Your task to perform on an android device: When is my next meeting? Image 0: 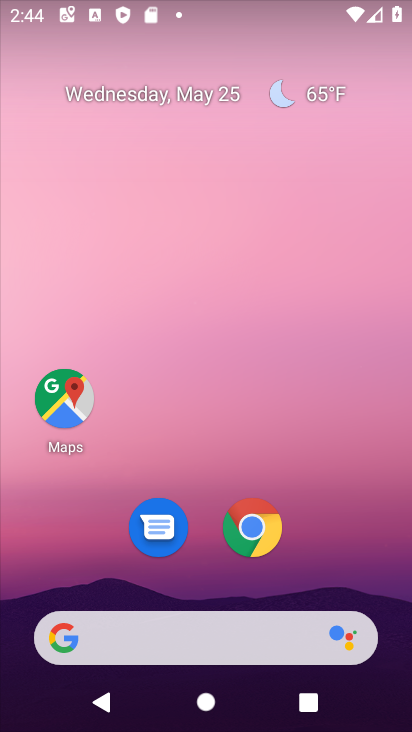
Step 0: drag from (321, 625) to (358, 10)
Your task to perform on an android device: When is my next meeting? Image 1: 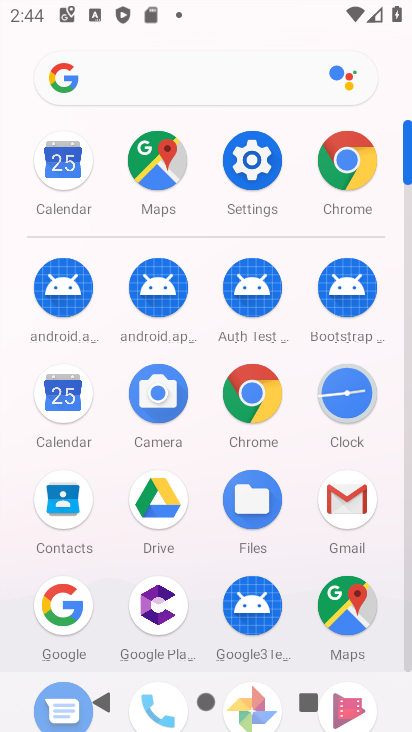
Step 1: click (74, 401)
Your task to perform on an android device: When is my next meeting? Image 2: 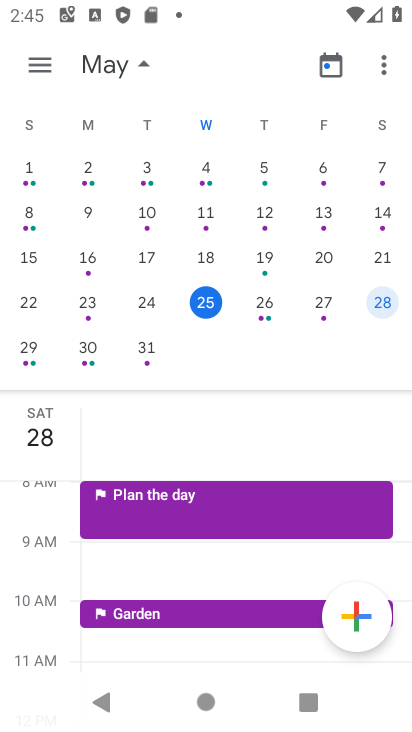
Step 2: click (197, 303)
Your task to perform on an android device: When is my next meeting? Image 3: 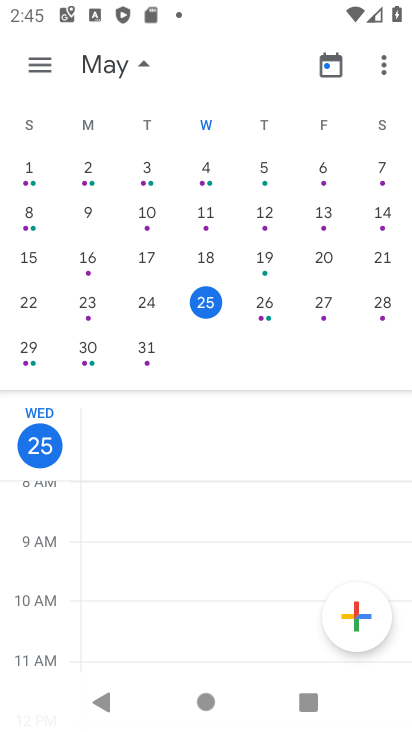
Step 3: task complete